Your task to perform on an android device: uninstall "Google Maps" Image 0: 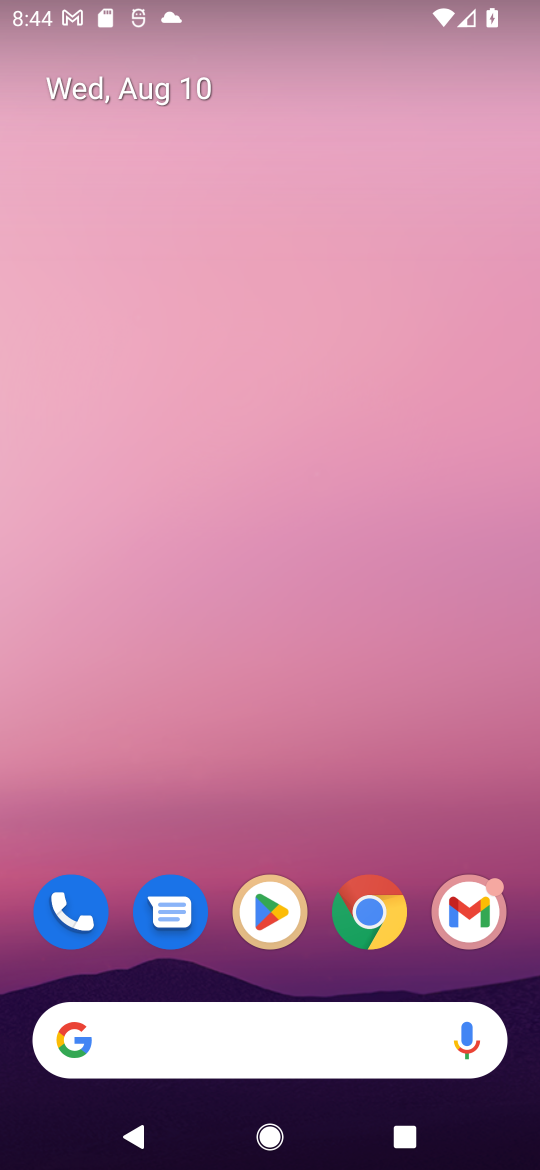
Step 0: drag from (527, 980) to (312, 17)
Your task to perform on an android device: uninstall "Google Maps" Image 1: 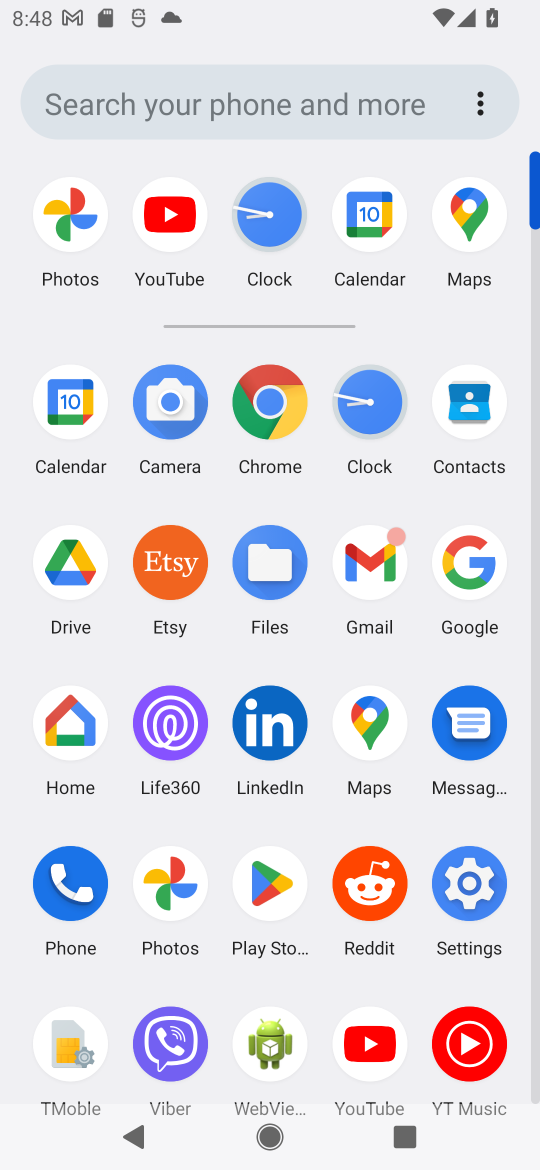
Step 1: click (289, 890)
Your task to perform on an android device: uninstall "Google Maps" Image 2: 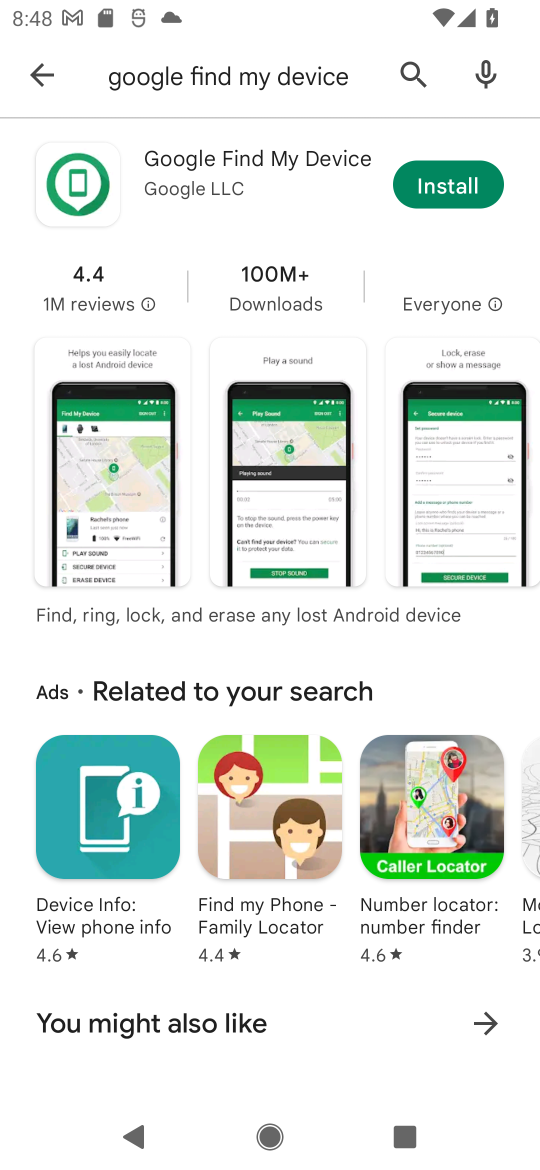
Step 2: press back button
Your task to perform on an android device: uninstall "Google Maps" Image 3: 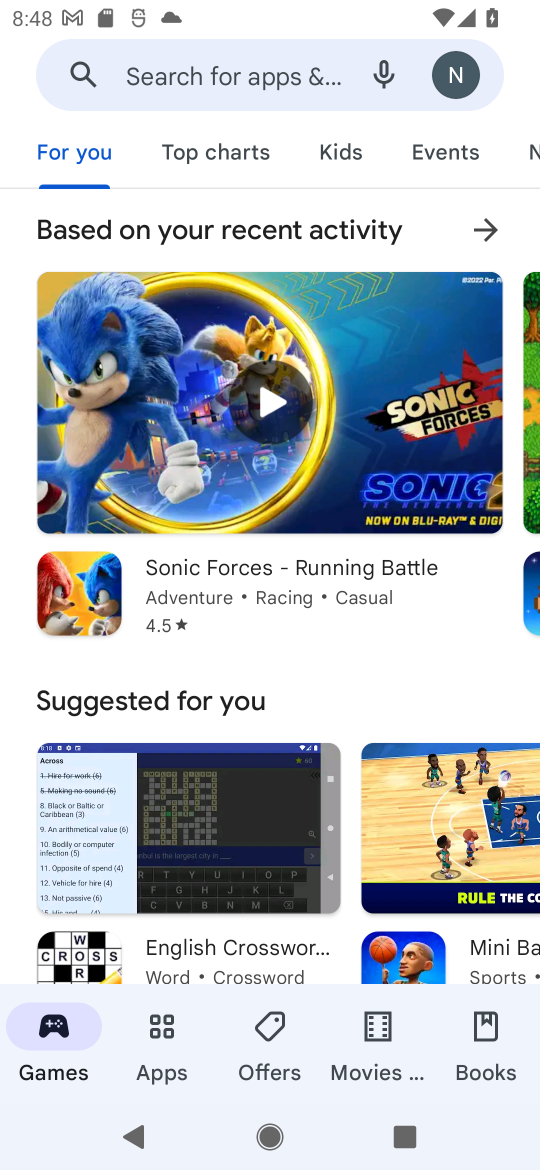
Step 3: click (226, 65)
Your task to perform on an android device: uninstall "Google Maps" Image 4: 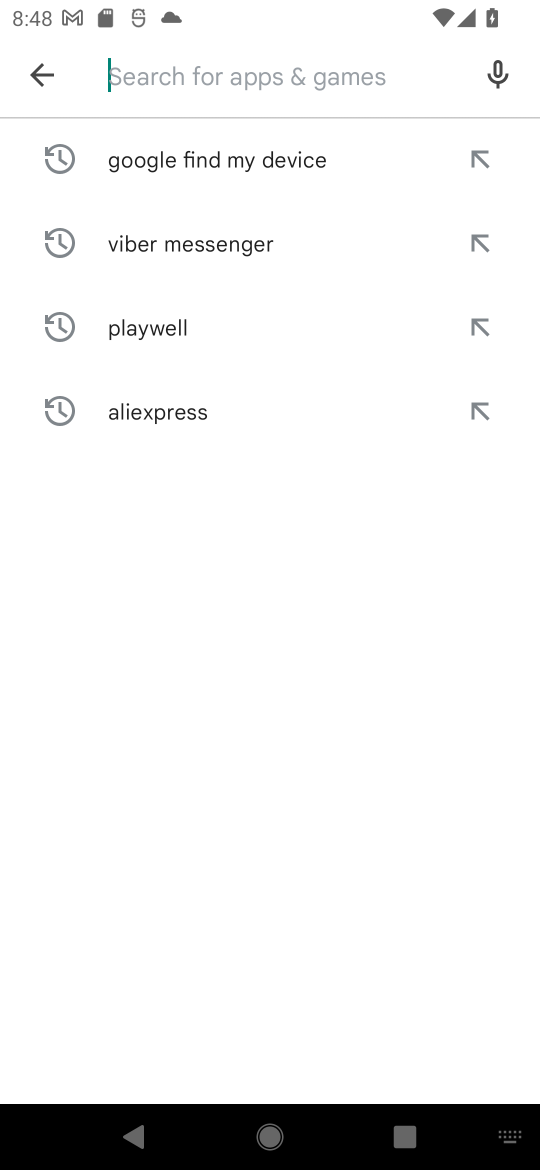
Step 4: type "Google Maps"
Your task to perform on an android device: uninstall "Google Maps" Image 5: 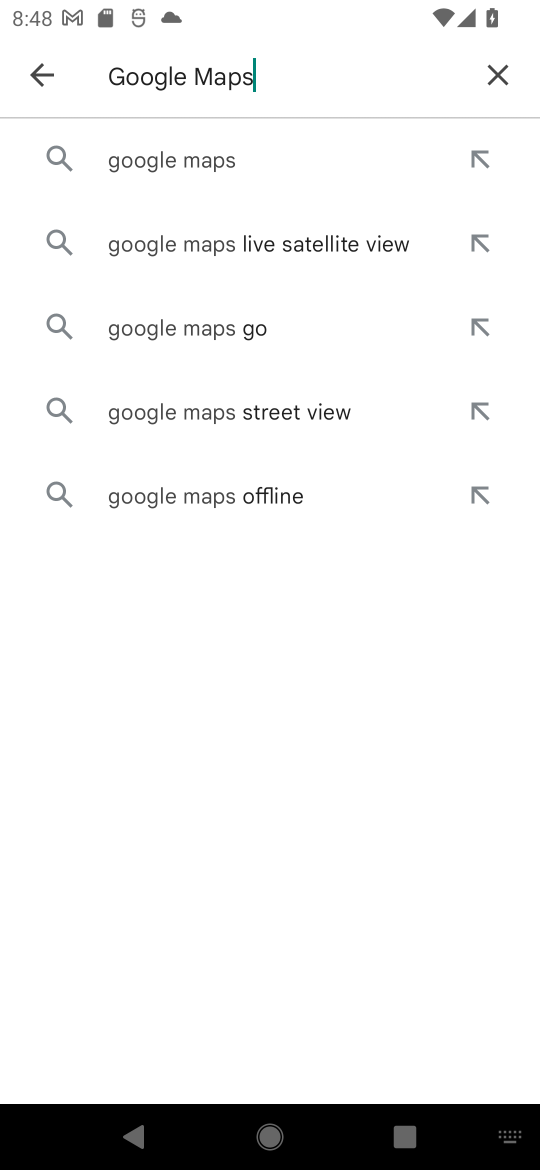
Step 5: click (210, 175)
Your task to perform on an android device: uninstall "Google Maps" Image 6: 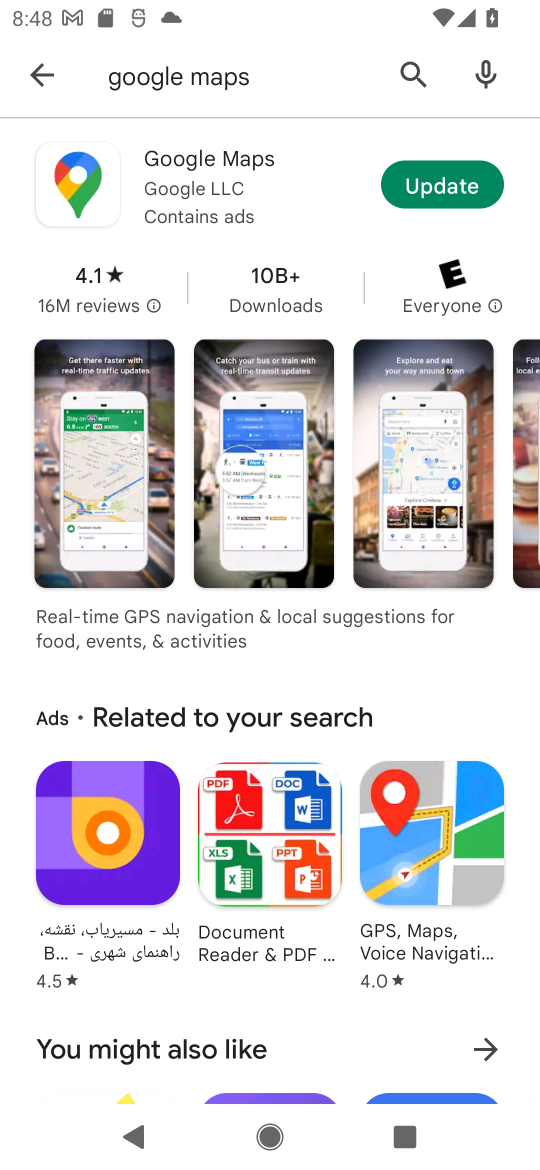
Step 6: task complete